Your task to perform on an android device: manage bookmarks in the chrome app Image 0: 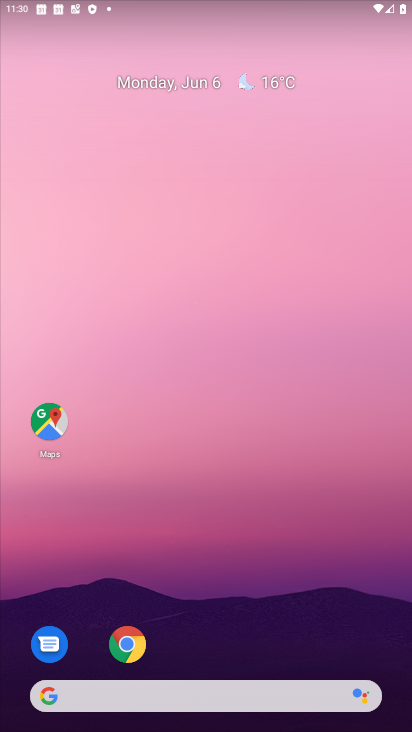
Step 0: drag from (284, 558) to (280, 85)
Your task to perform on an android device: manage bookmarks in the chrome app Image 1: 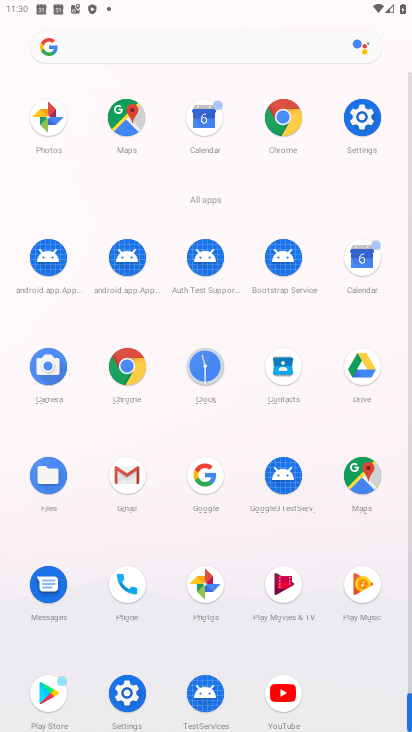
Step 1: drag from (5, 567) to (20, 220)
Your task to perform on an android device: manage bookmarks in the chrome app Image 2: 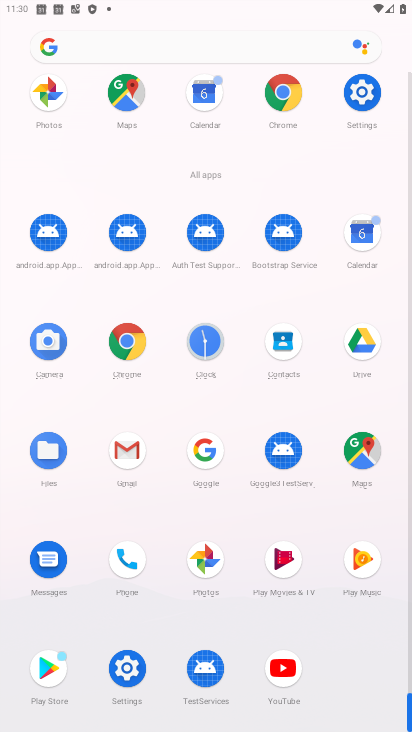
Step 2: click (125, 337)
Your task to perform on an android device: manage bookmarks in the chrome app Image 3: 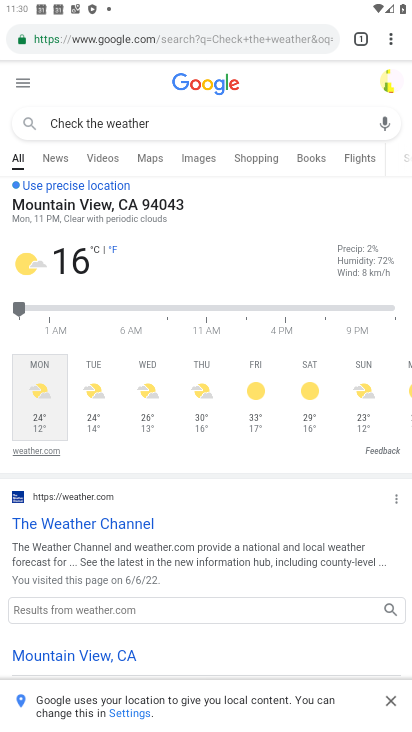
Step 3: task complete